Your task to perform on an android device: What are the best selling refrigerators at Home Depot? Image 0: 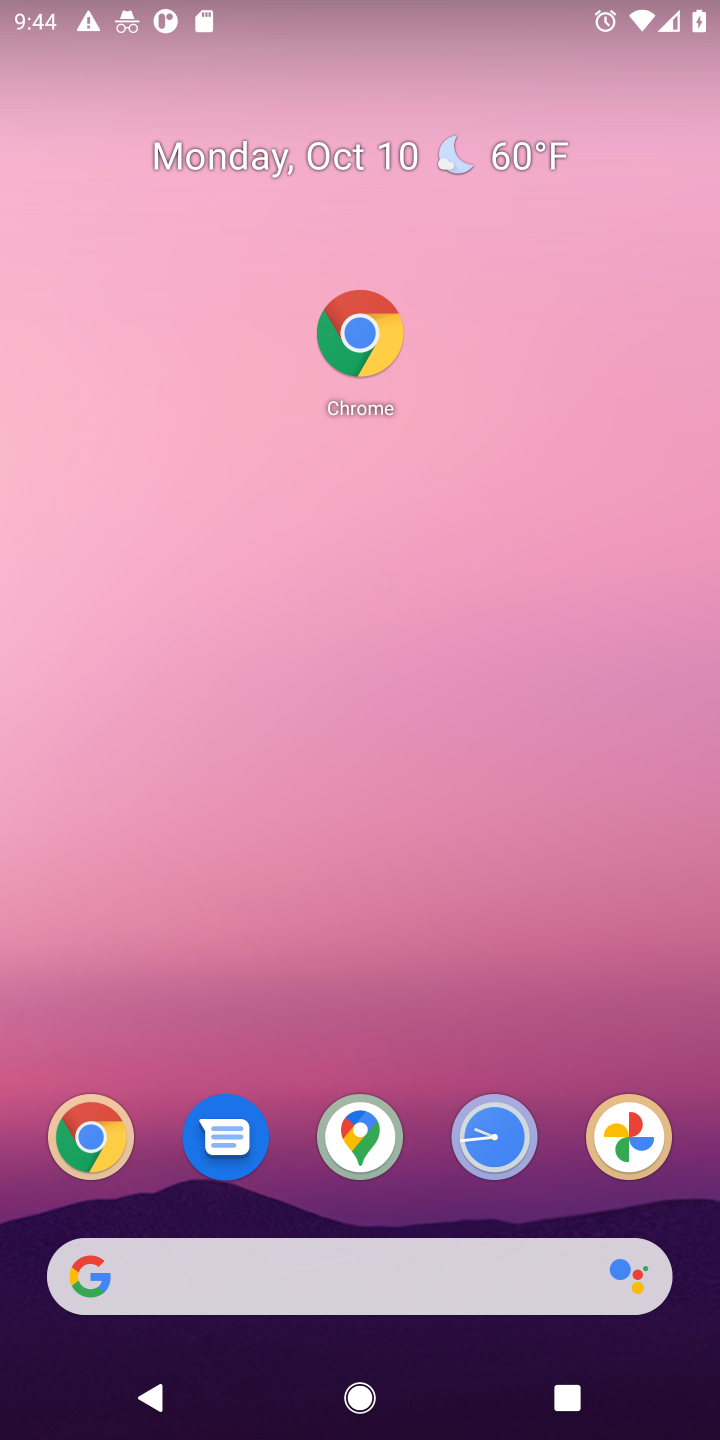
Step 0: click (354, 333)
Your task to perform on an android device: What are the best selling refrigerators at Home Depot? Image 1: 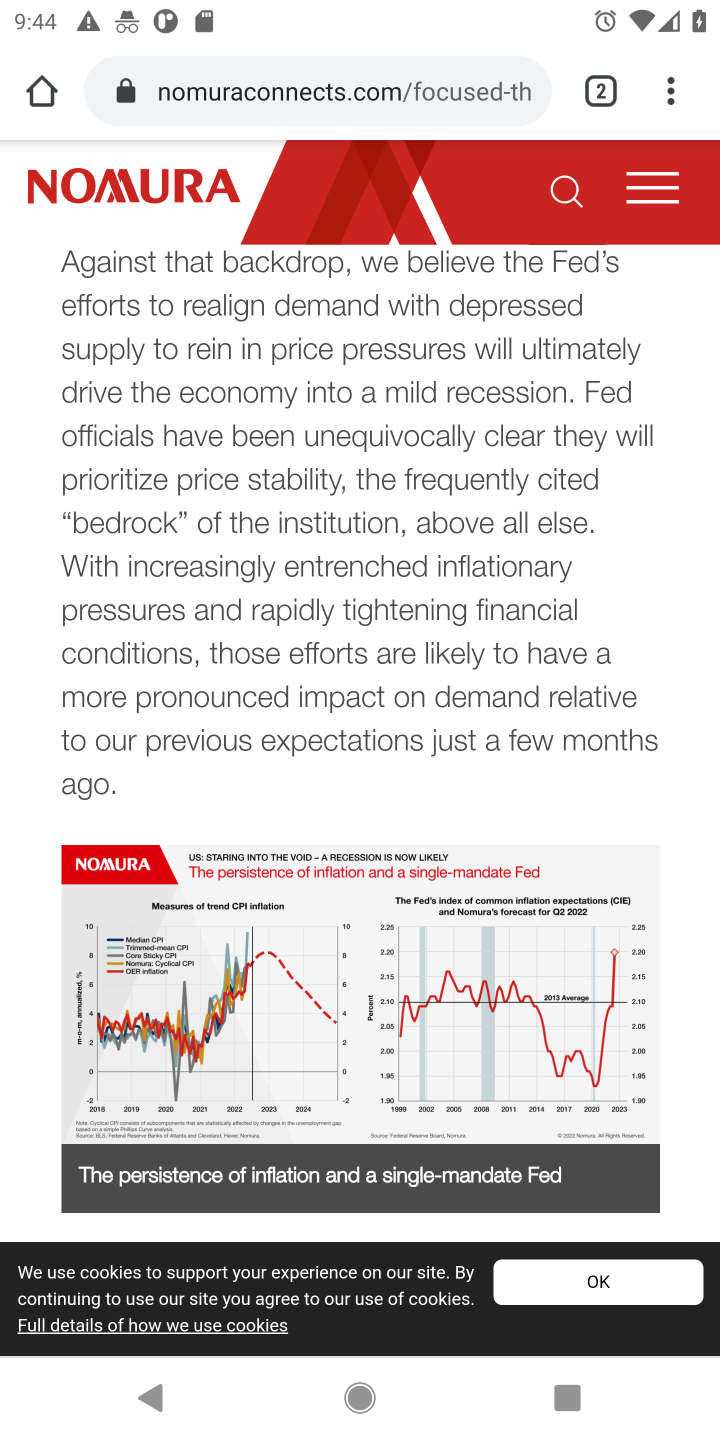
Step 1: click (357, 64)
Your task to perform on an android device: What are the best selling refrigerators at Home Depot? Image 2: 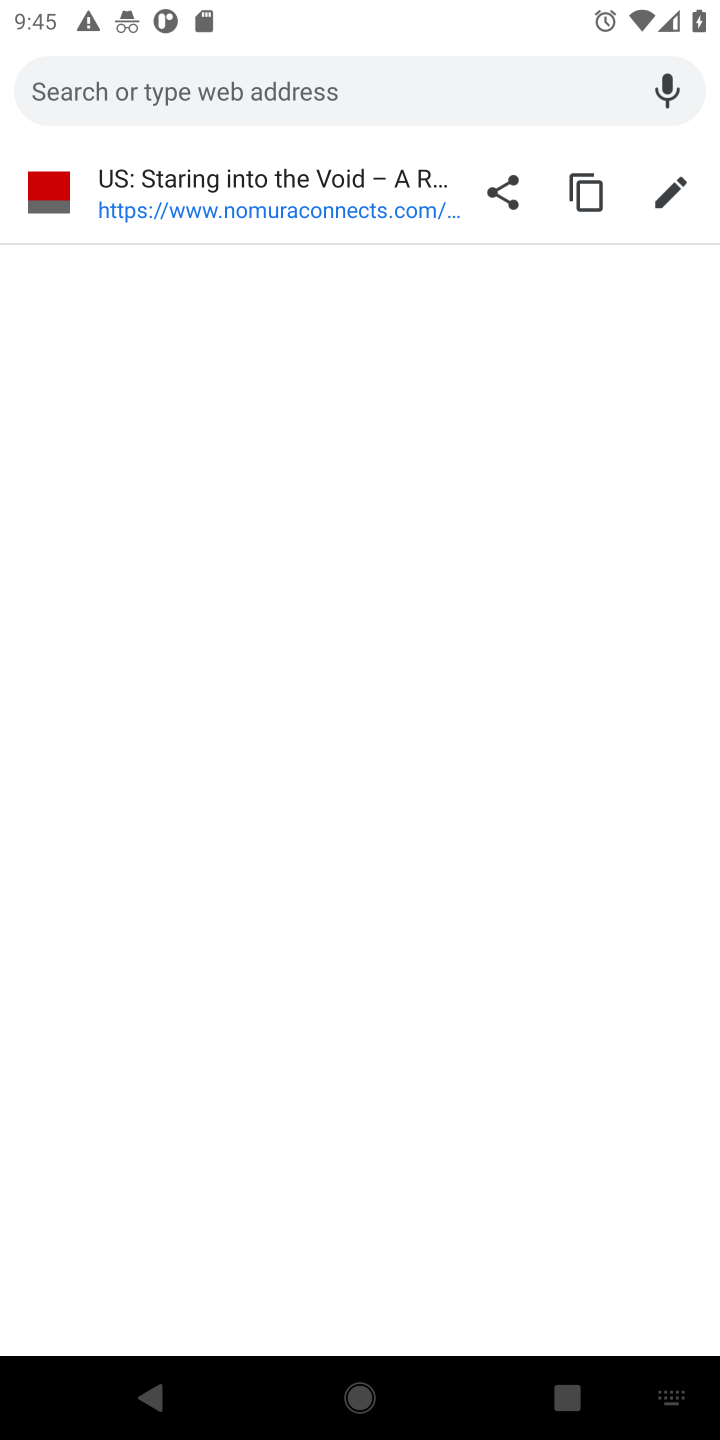
Step 2: type "home depot"
Your task to perform on an android device: What are the best selling refrigerators at Home Depot? Image 3: 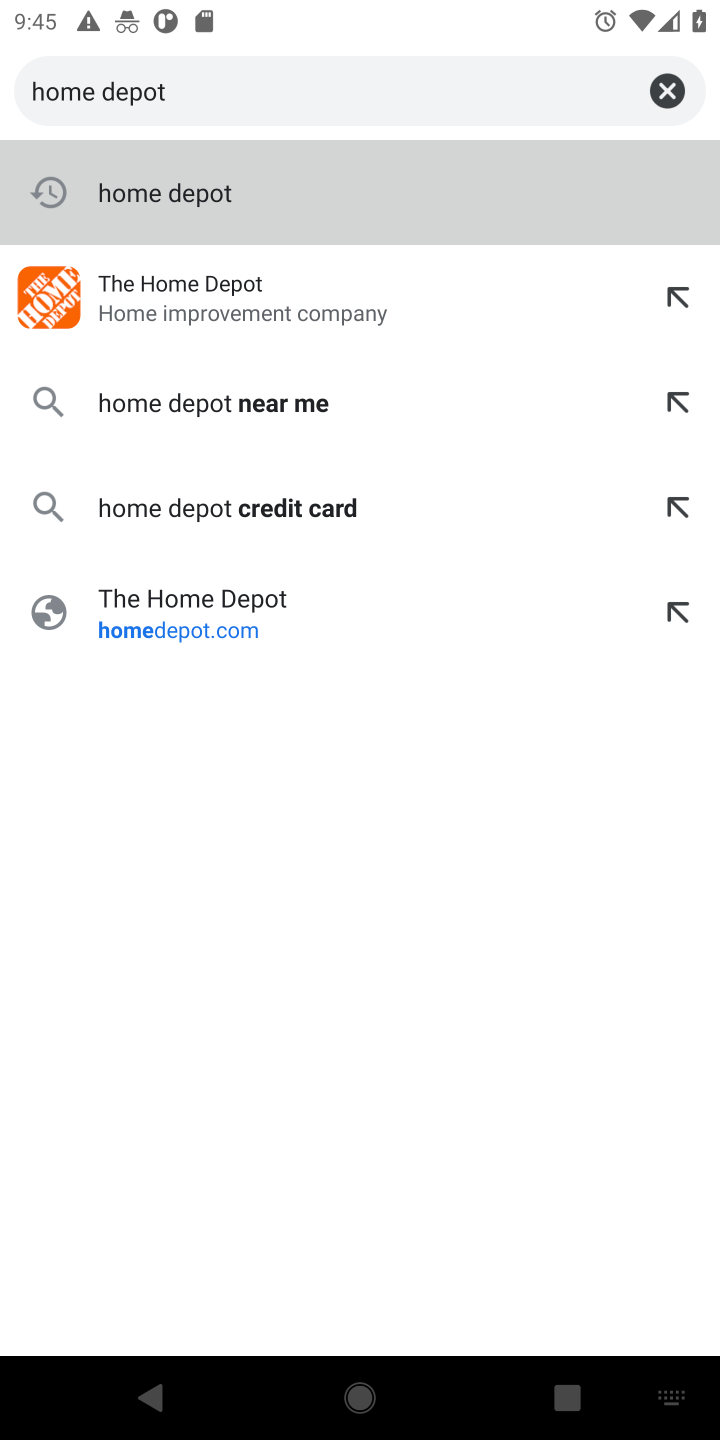
Step 3: click (188, 189)
Your task to perform on an android device: What are the best selling refrigerators at Home Depot? Image 4: 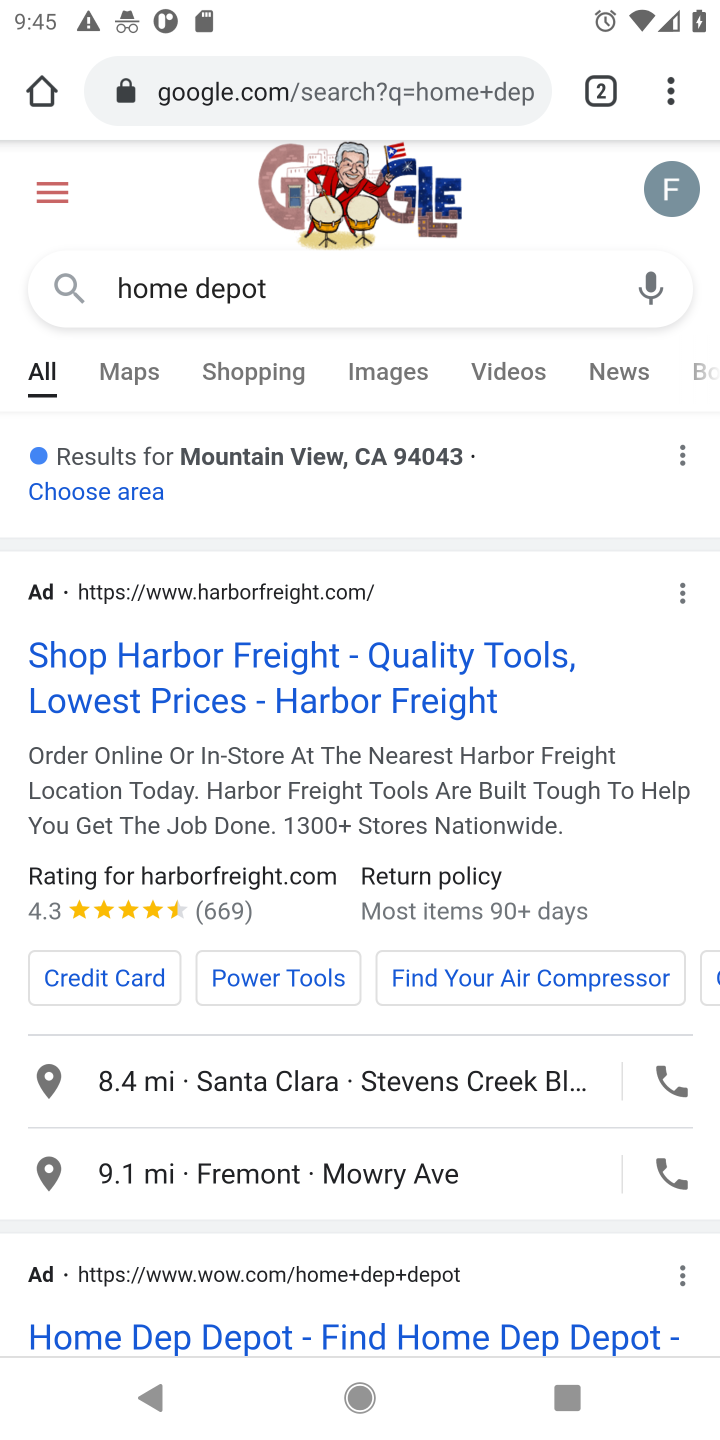
Step 4: drag from (339, 1269) to (332, 520)
Your task to perform on an android device: What are the best selling refrigerators at Home Depot? Image 5: 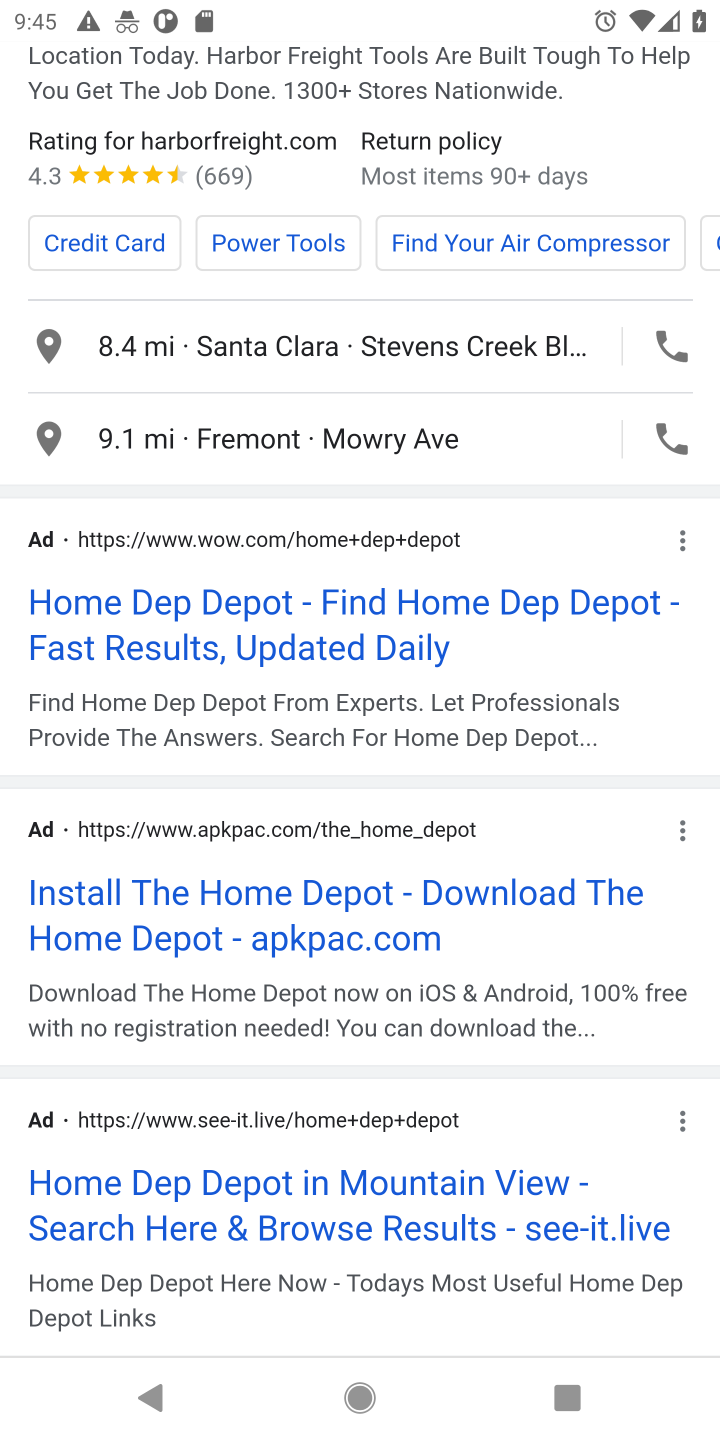
Step 5: drag from (316, 1053) to (255, 151)
Your task to perform on an android device: What are the best selling refrigerators at Home Depot? Image 6: 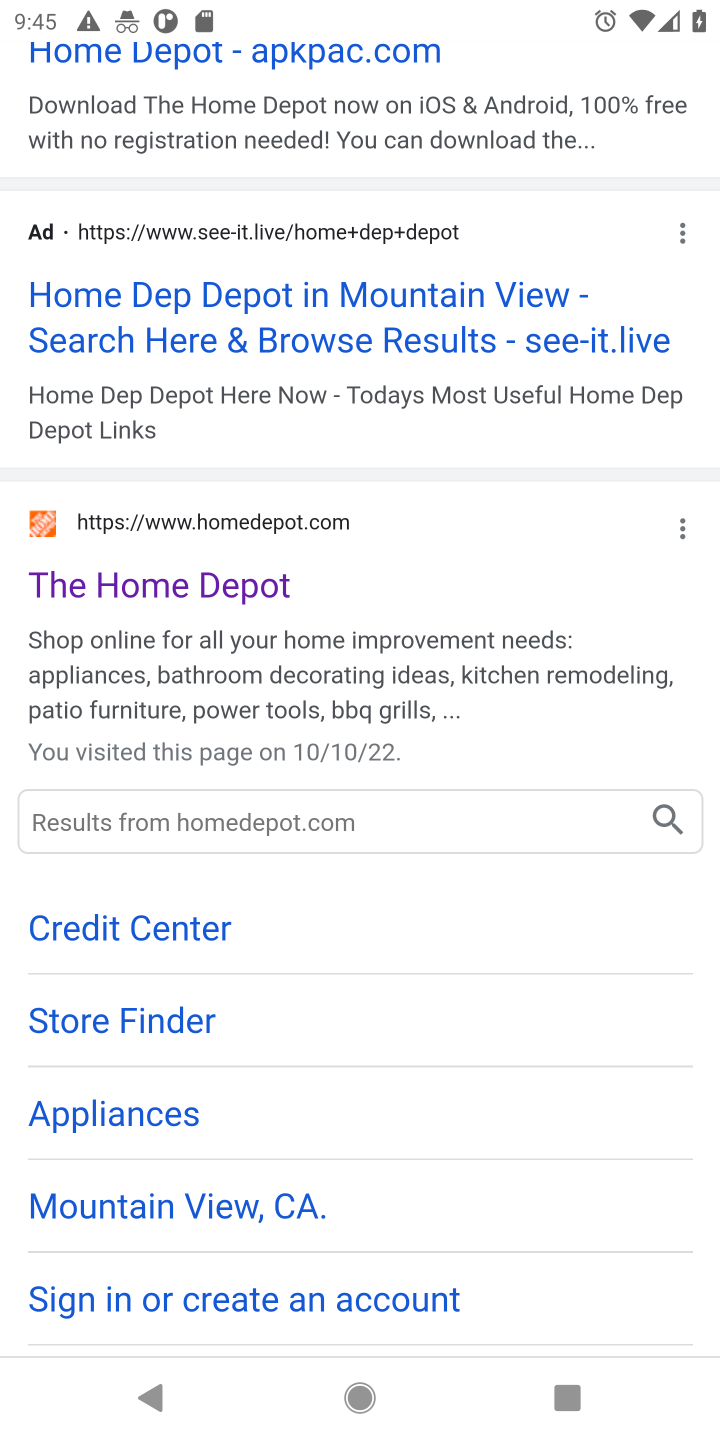
Step 6: click (188, 609)
Your task to perform on an android device: What are the best selling refrigerators at Home Depot? Image 7: 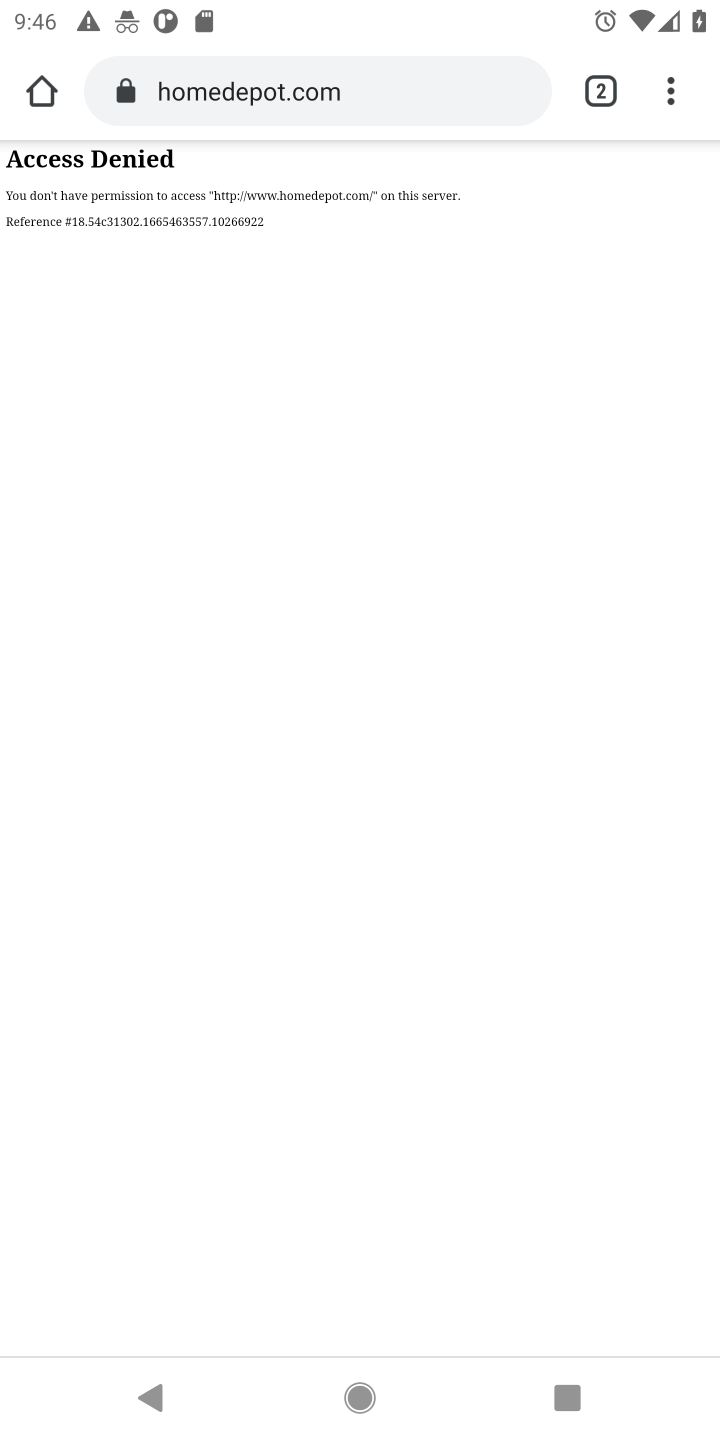
Step 7: task complete